Your task to perform on an android device: add a contact Image 0: 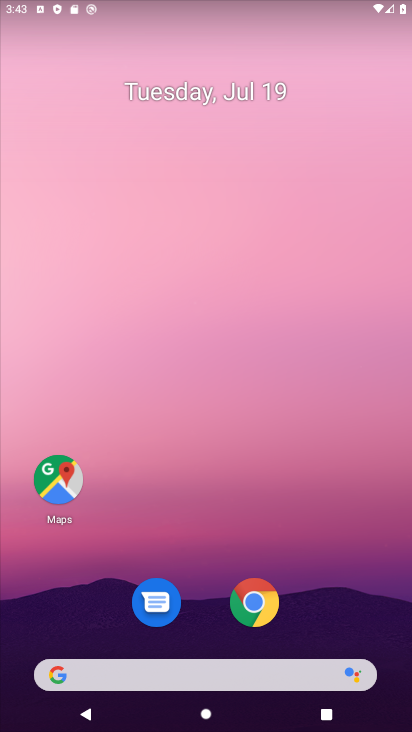
Step 0: drag from (317, 624) to (318, 289)
Your task to perform on an android device: add a contact Image 1: 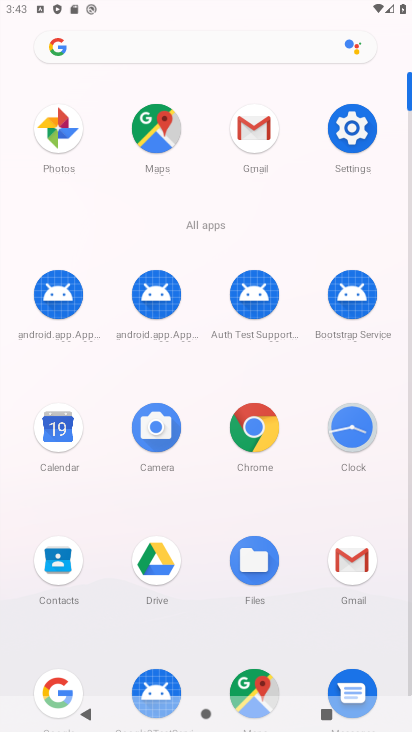
Step 1: click (59, 557)
Your task to perform on an android device: add a contact Image 2: 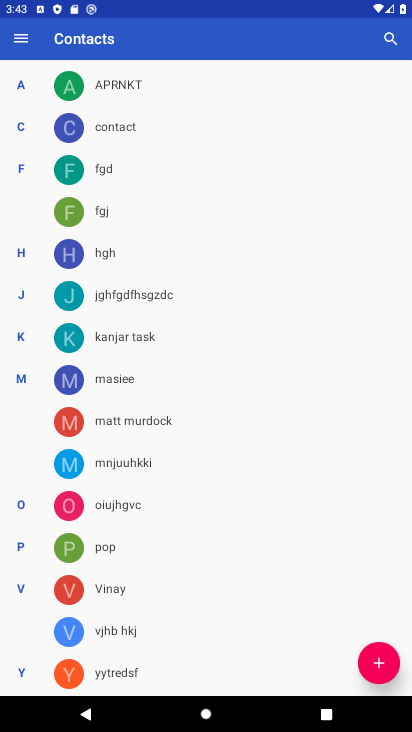
Step 2: click (371, 664)
Your task to perform on an android device: add a contact Image 3: 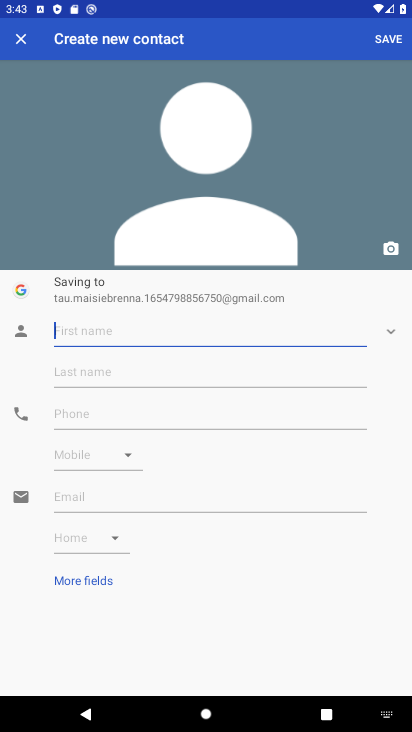
Step 3: type "ddf"
Your task to perform on an android device: add a contact Image 4: 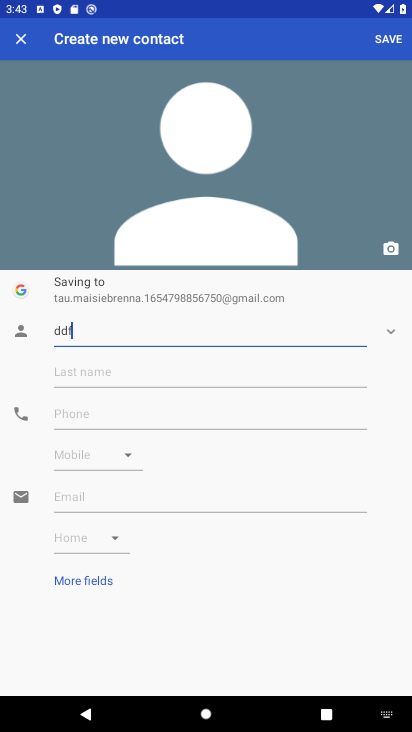
Step 4: click (125, 410)
Your task to perform on an android device: add a contact Image 5: 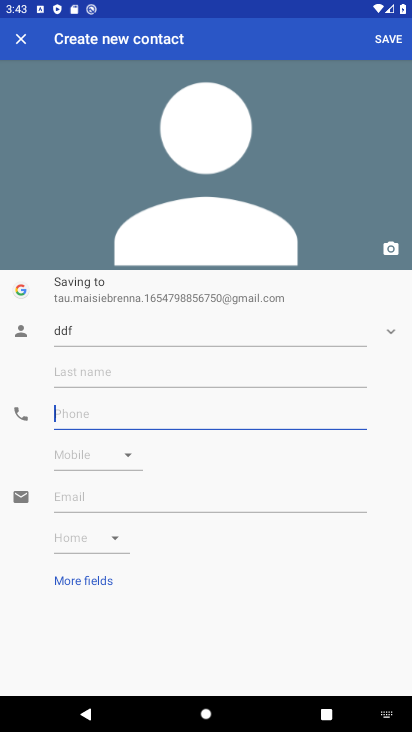
Step 5: type "8876545678"
Your task to perform on an android device: add a contact Image 6: 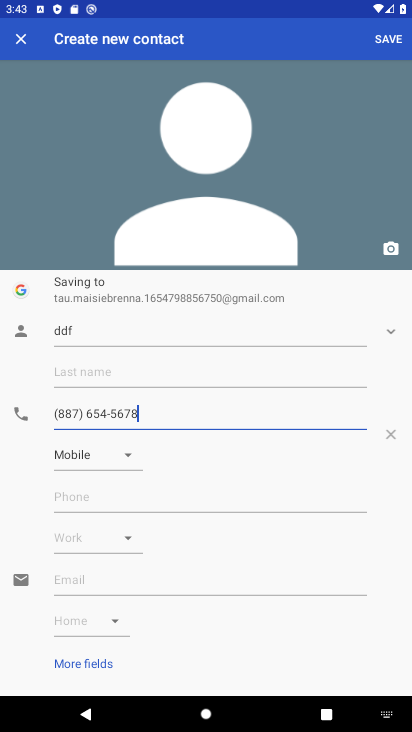
Step 6: click (375, 44)
Your task to perform on an android device: add a contact Image 7: 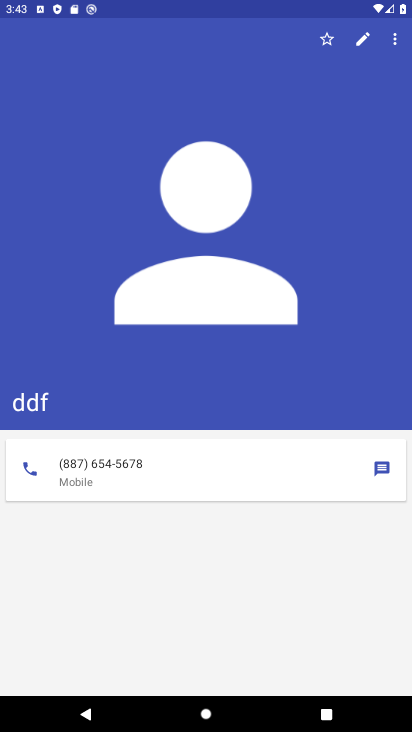
Step 7: task complete